Your task to perform on an android device: Go to notification settings Image 0: 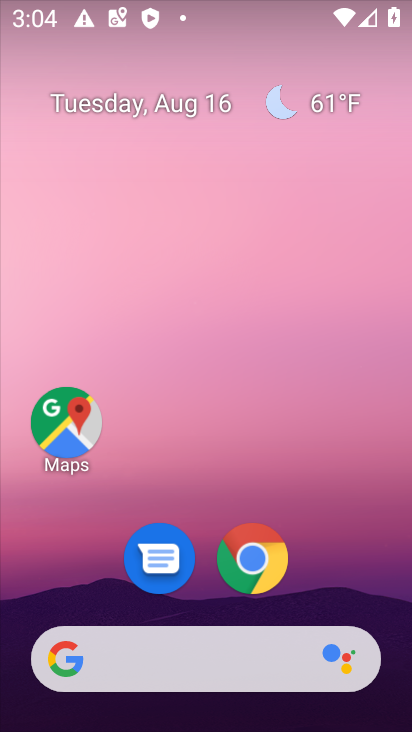
Step 0: drag from (378, 610) to (326, 152)
Your task to perform on an android device: Go to notification settings Image 1: 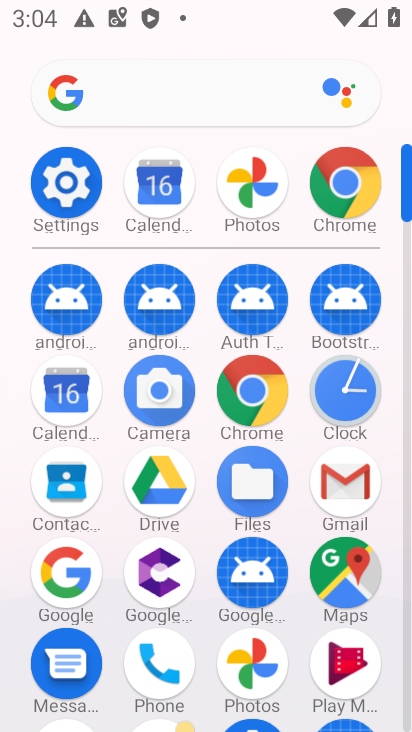
Step 1: click (404, 659)
Your task to perform on an android device: Go to notification settings Image 2: 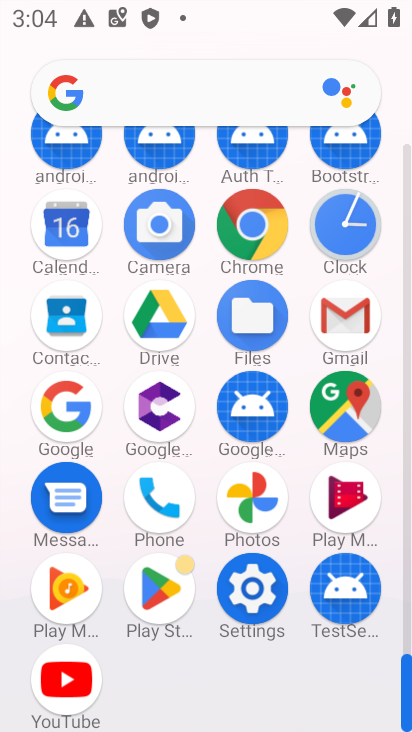
Step 2: click (254, 586)
Your task to perform on an android device: Go to notification settings Image 3: 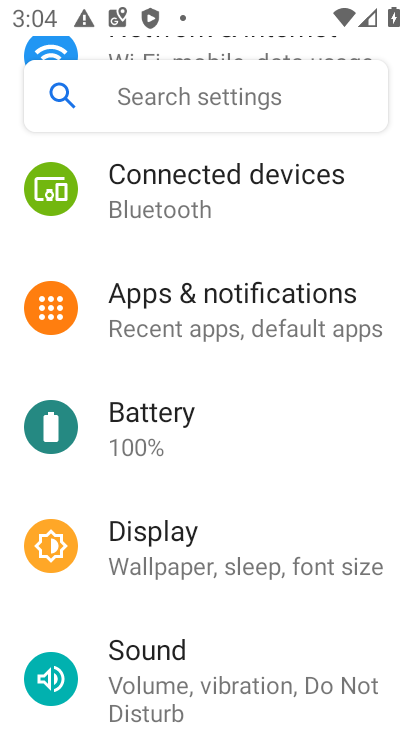
Step 3: click (228, 288)
Your task to perform on an android device: Go to notification settings Image 4: 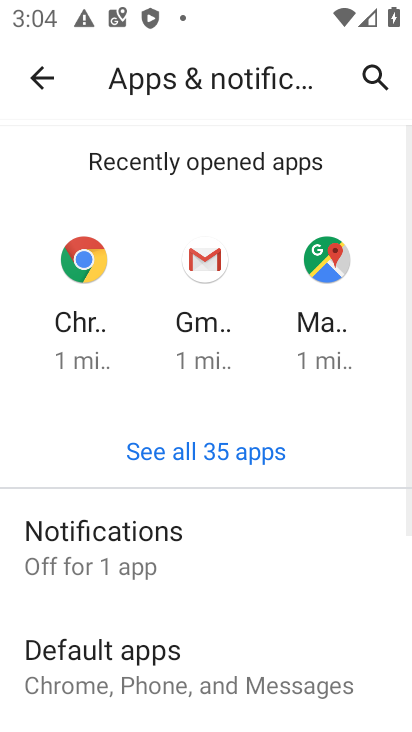
Step 4: drag from (283, 600) to (292, 255)
Your task to perform on an android device: Go to notification settings Image 5: 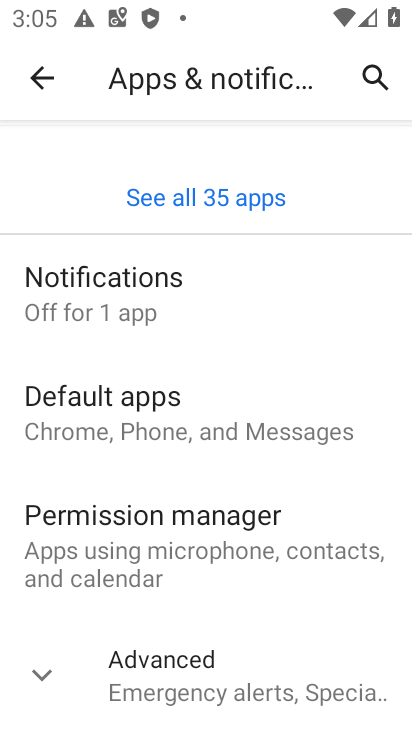
Step 5: click (89, 278)
Your task to perform on an android device: Go to notification settings Image 6: 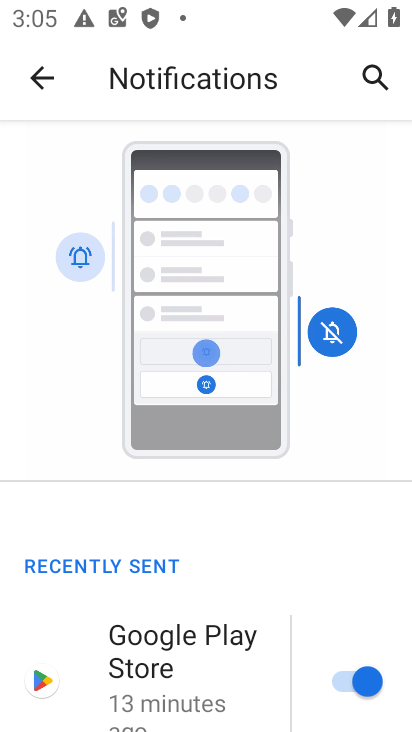
Step 6: drag from (290, 625) to (260, 248)
Your task to perform on an android device: Go to notification settings Image 7: 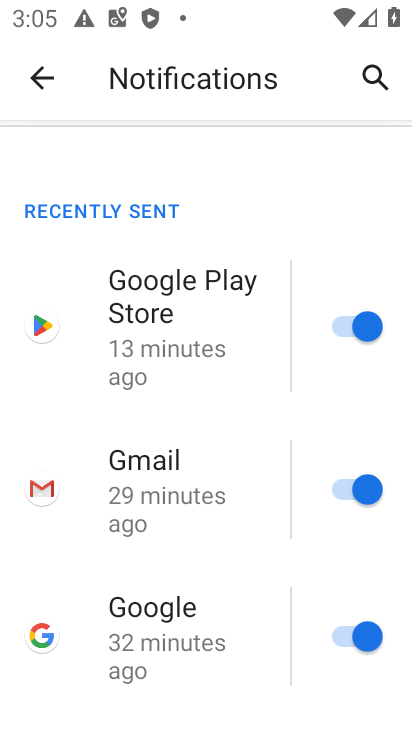
Step 7: drag from (304, 709) to (258, 180)
Your task to perform on an android device: Go to notification settings Image 8: 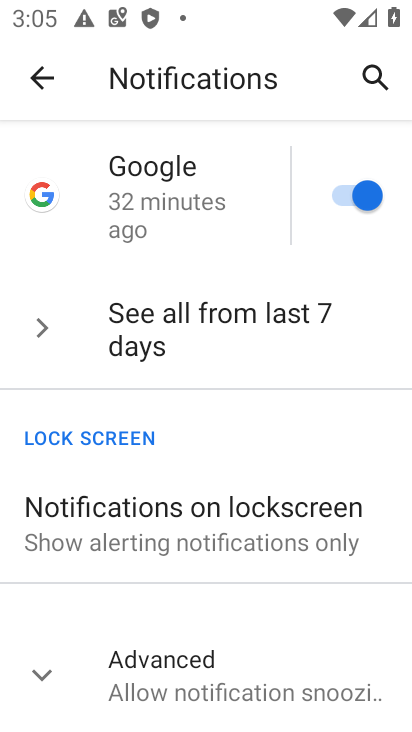
Step 8: click (43, 676)
Your task to perform on an android device: Go to notification settings Image 9: 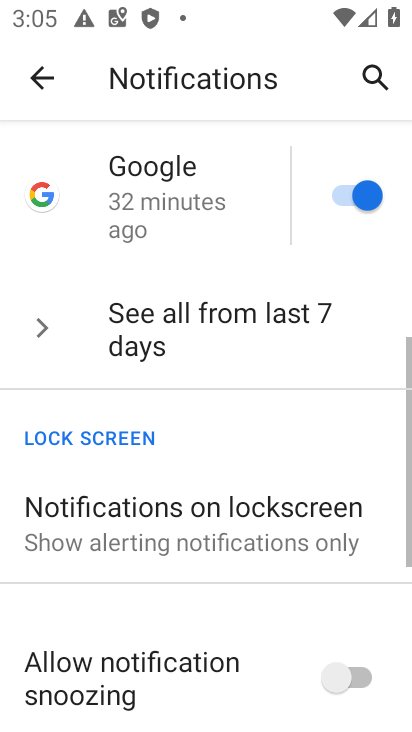
Step 9: task complete